Your task to perform on an android device: What's on my calendar tomorrow? Image 0: 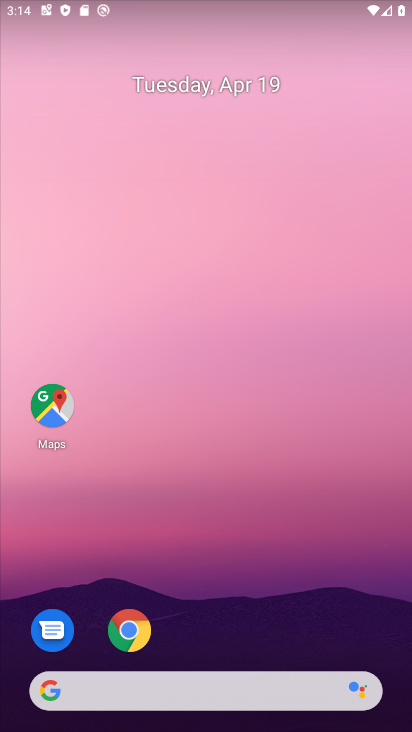
Step 0: drag from (306, 567) to (232, 58)
Your task to perform on an android device: What's on my calendar tomorrow? Image 1: 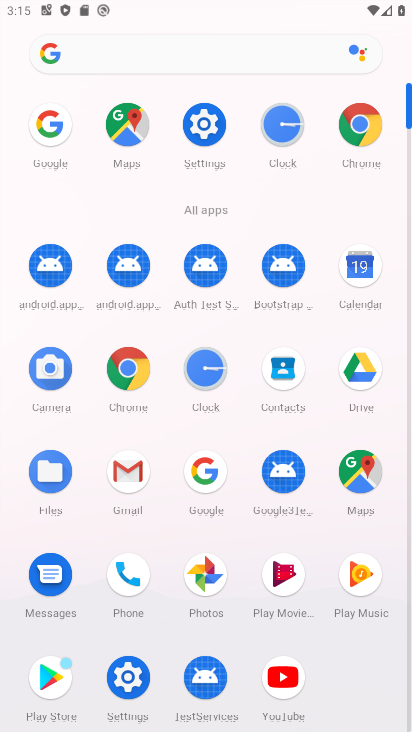
Step 1: click (364, 265)
Your task to perform on an android device: What's on my calendar tomorrow? Image 2: 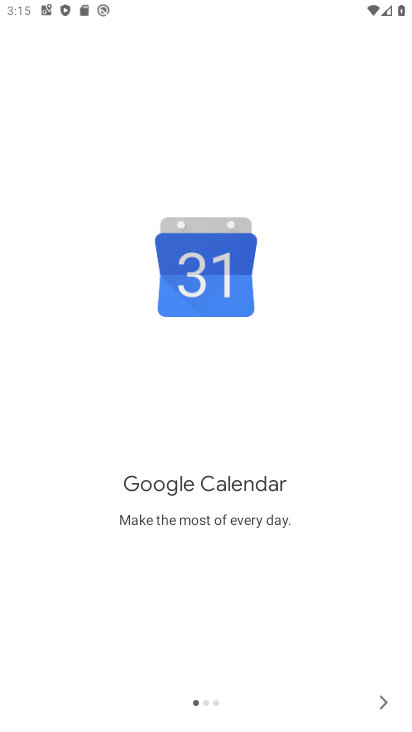
Step 2: click (389, 705)
Your task to perform on an android device: What's on my calendar tomorrow? Image 3: 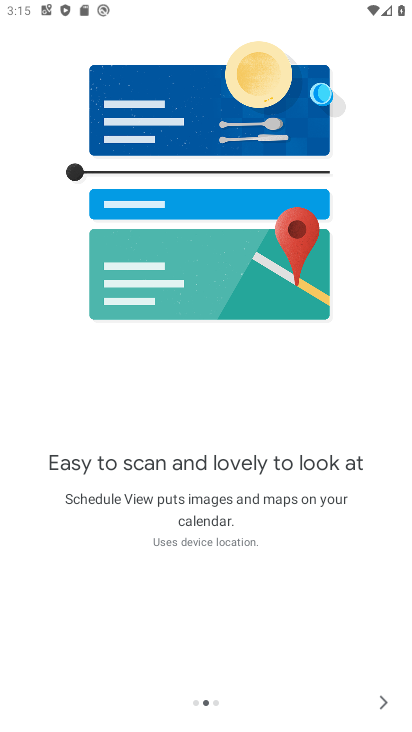
Step 3: click (388, 701)
Your task to perform on an android device: What's on my calendar tomorrow? Image 4: 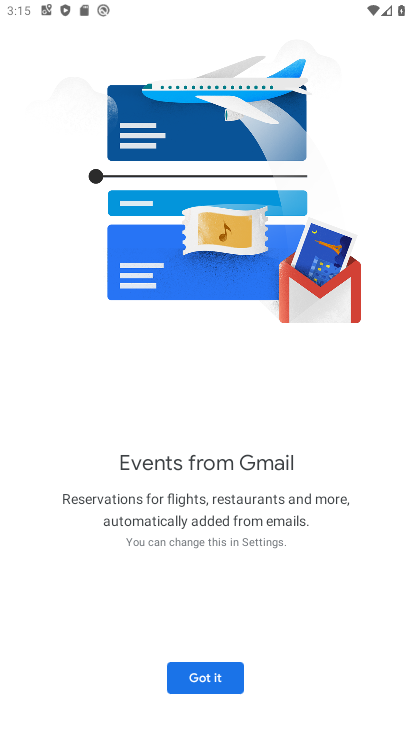
Step 4: click (189, 674)
Your task to perform on an android device: What's on my calendar tomorrow? Image 5: 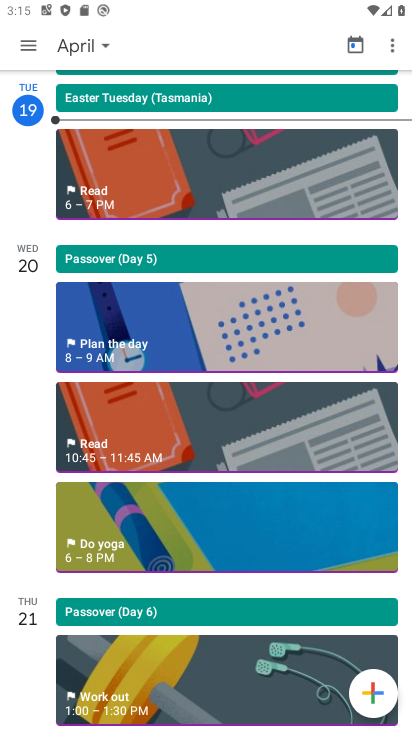
Step 5: click (104, 43)
Your task to perform on an android device: What's on my calendar tomorrow? Image 6: 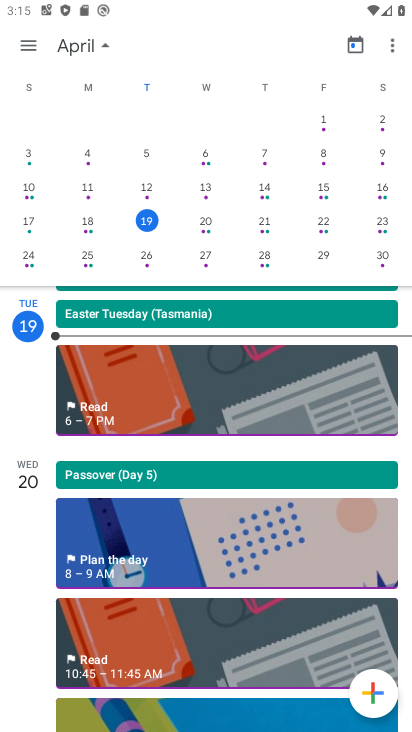
Step 6: click (140, 227)
Your task to perform on an android device: What's on my calendar tomorrow? Image 7: 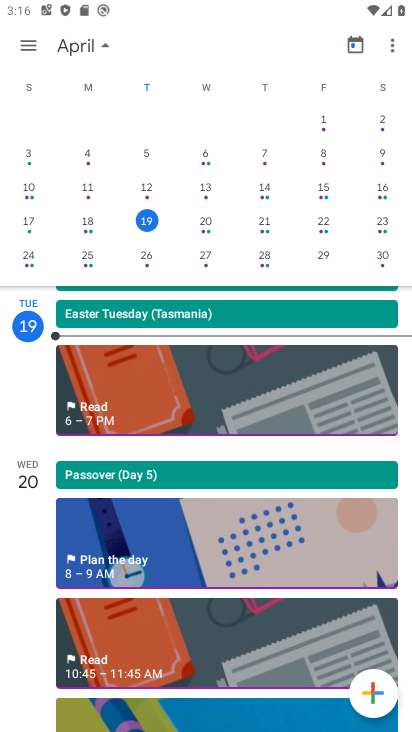
Step 7: task complete